Your task to perform on an android device: toggle pop-ups in chrome Image 0: 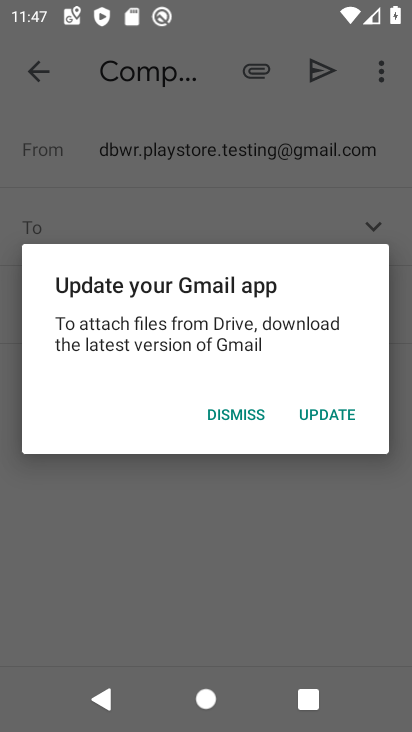
Step 0: press home button
Your task to perform on an android device: toggle pop-ups in chrome Image 1: 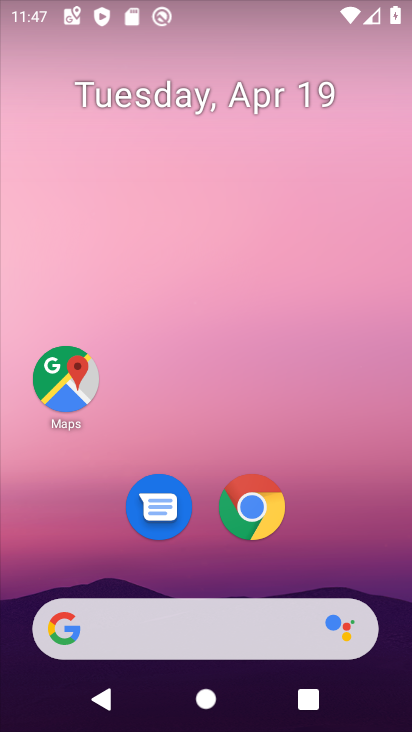
Step 1: click (255, 503)
Your task to perform on an android device: toggle pop-ups in chrome Image 2: 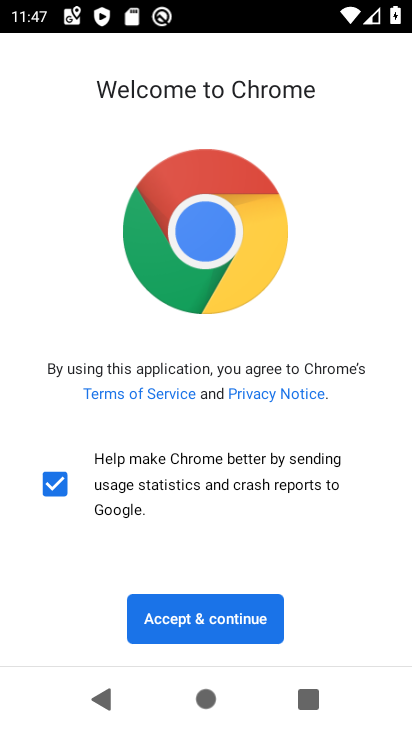
Step 2: click (218, 612)
Your task to perform on an android device: toggle pop-ups in chrome Image 3: 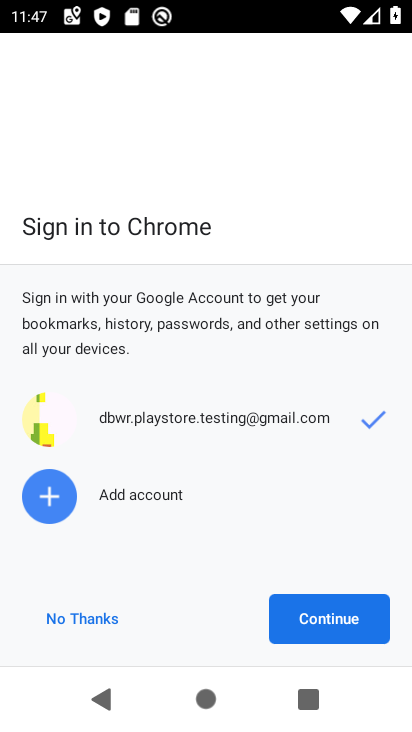
Step 3: click (320, 621)
Your task to perform on an android device: toggle pop-ups in chrome Image 4: 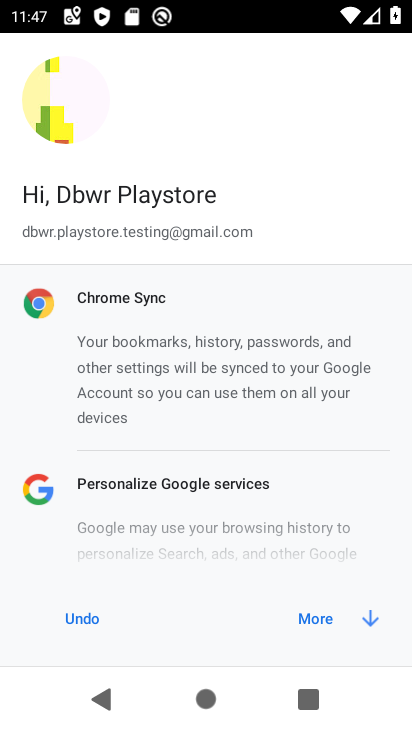
Step 4: click (323, 619)
Your task to perform on an android device: toggle pop-ups in chrome Image 5: 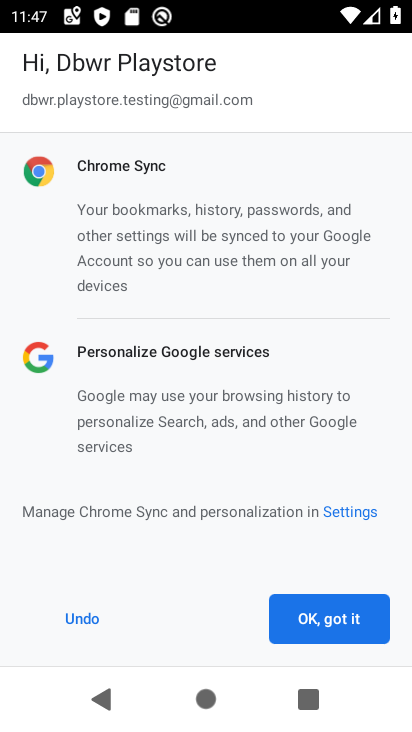
Step 5: click (324, 619)
Your task to perform on an android device: toggle pop-ups in chrome Image 6: 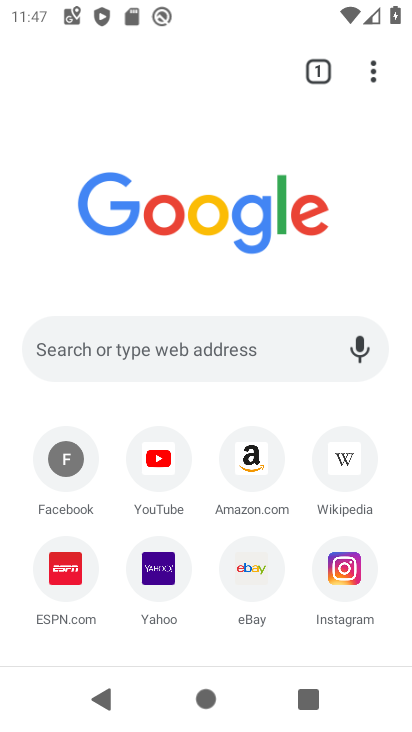
Step 6: click (374, 70)
Your task to perform on an android device: toggle pop-ups in chrome Image 7: 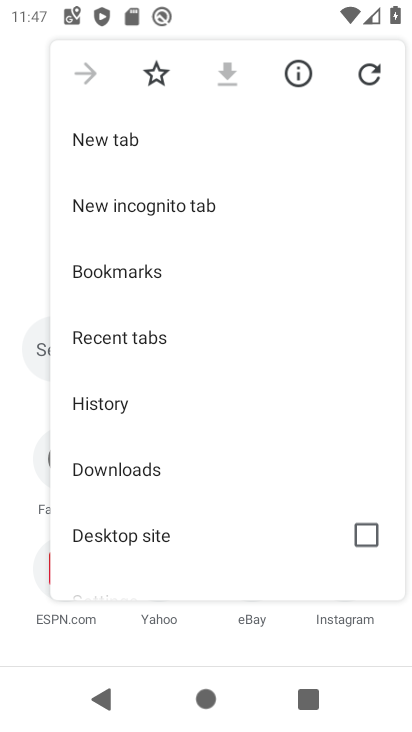
Step 7: drag from (221, 399) to (227, 274)
Your task to perform on an android device: toggle pop-ups in chrome Image 8: 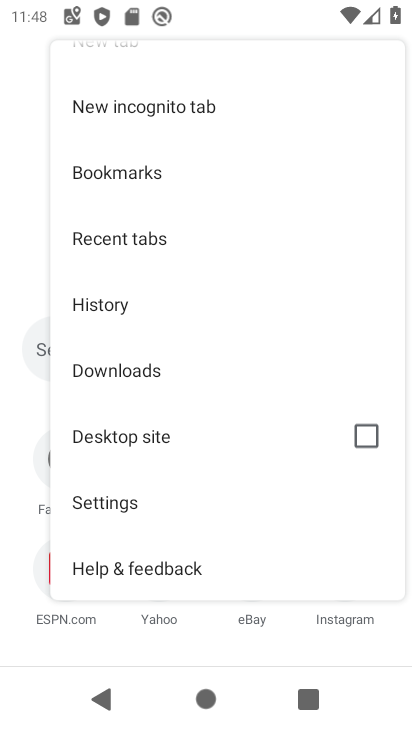
Step 8: click (110, 506)
Your task to perform on an android device: toggle pop-ups in chrome Image 9: 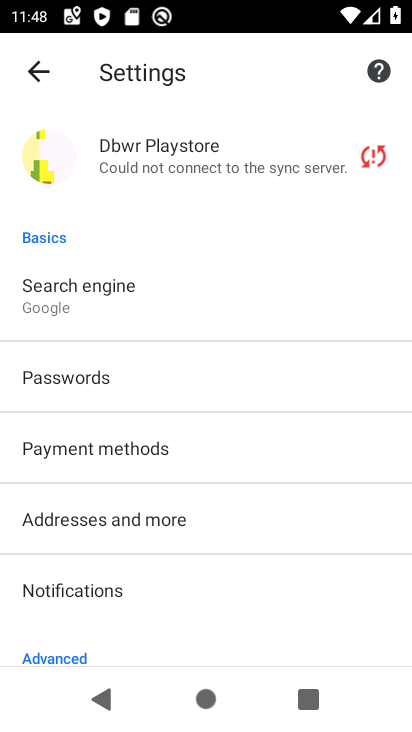
Step 9: drag from (109, 564) to (178, 378)
Your task to perform on an android device: toggle pop-ups in chrome Image 10: 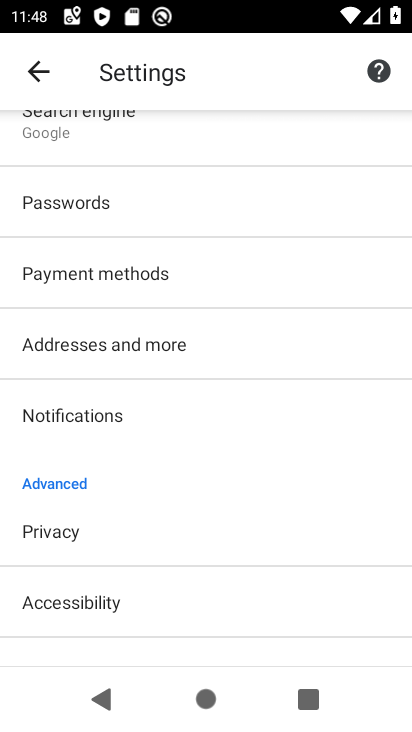
Step 10: drag from (137, 512) to (160, 348)
Your task to perform on an android device: toggle pop-ups in chrome Image 11: 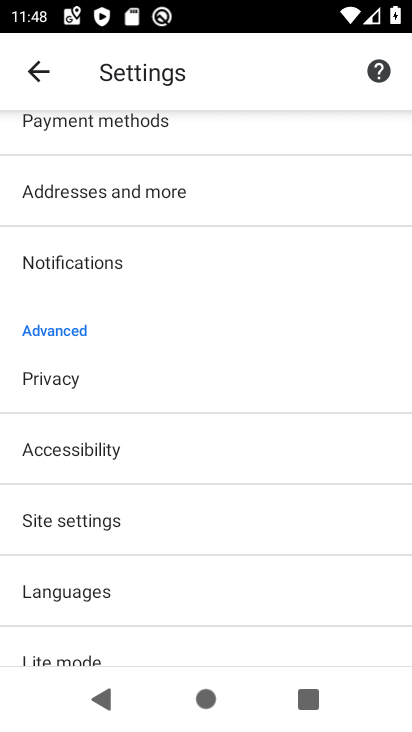
Step 11: click (95, 512)
Your task to perform on an android device: toggle pop-ups in chrome Image 12: 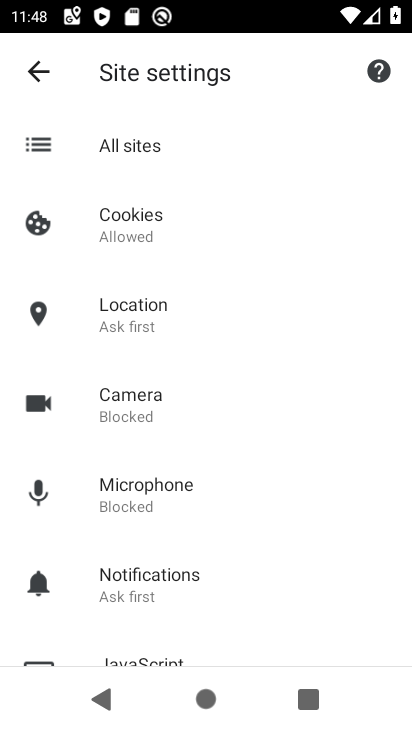
Step 12: drag from (151, 546) to (201, 429)
Your task to perform on an android device: toggle pop-ups in chrome Image 13: 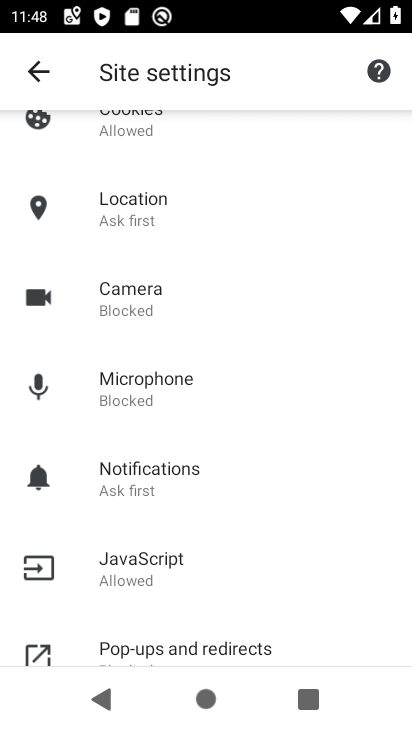
Step 13: drag from (166, 599) to (218, 482)
Your task to perform on an android device: toggle pop-ups in chrome Image 14: 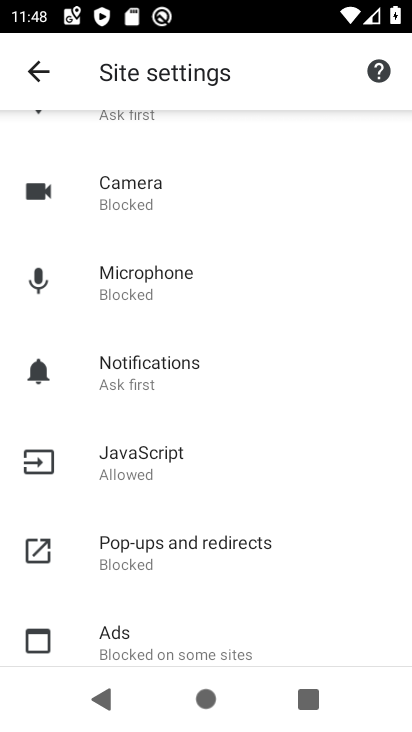
Step 14: click (185, 547)
Your task to perform on an android device: toggle pop-ups in chrome Image 15: 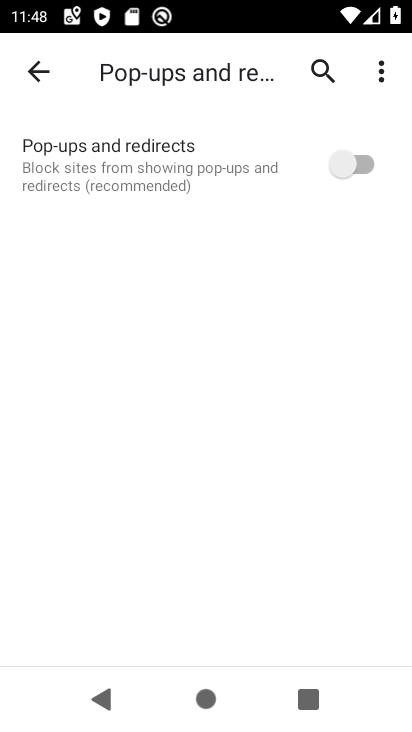
Step 15: click (334, 166)
Your task to perform on an android device: toggle pop-ups in chrome Image 16: 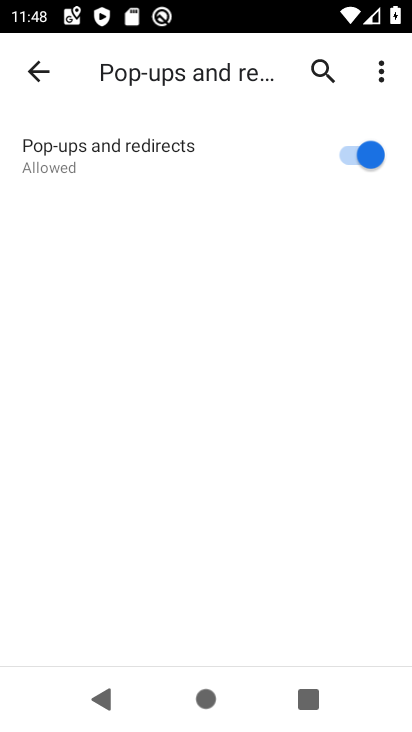
Step 16: task complete